Your task to perform on an android device: open device folders in google photos Image 0: 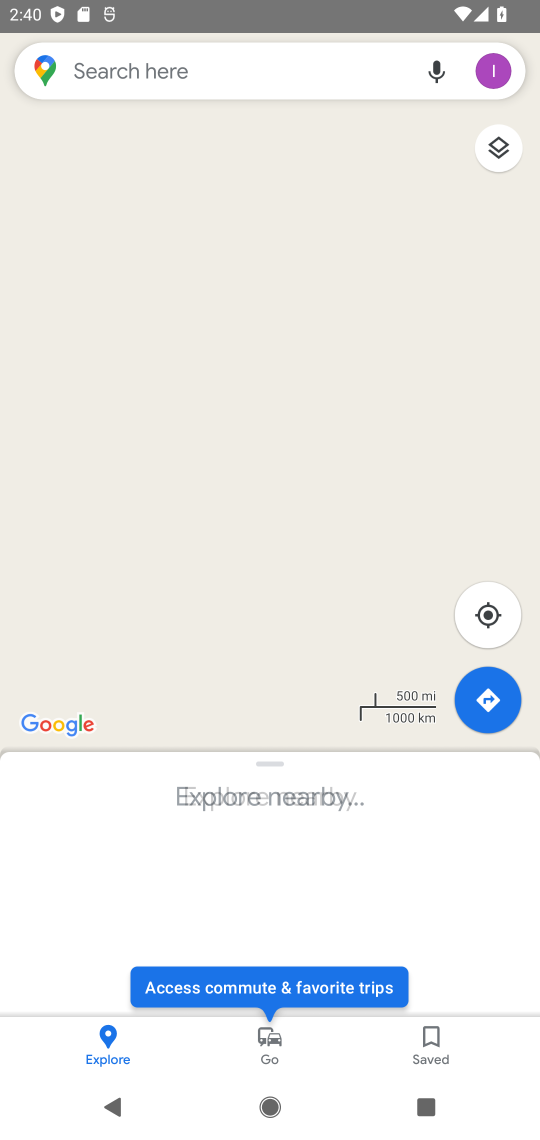
Step 0: press home button
Your task to perform on an android device: open device folders in google photos Image 1: 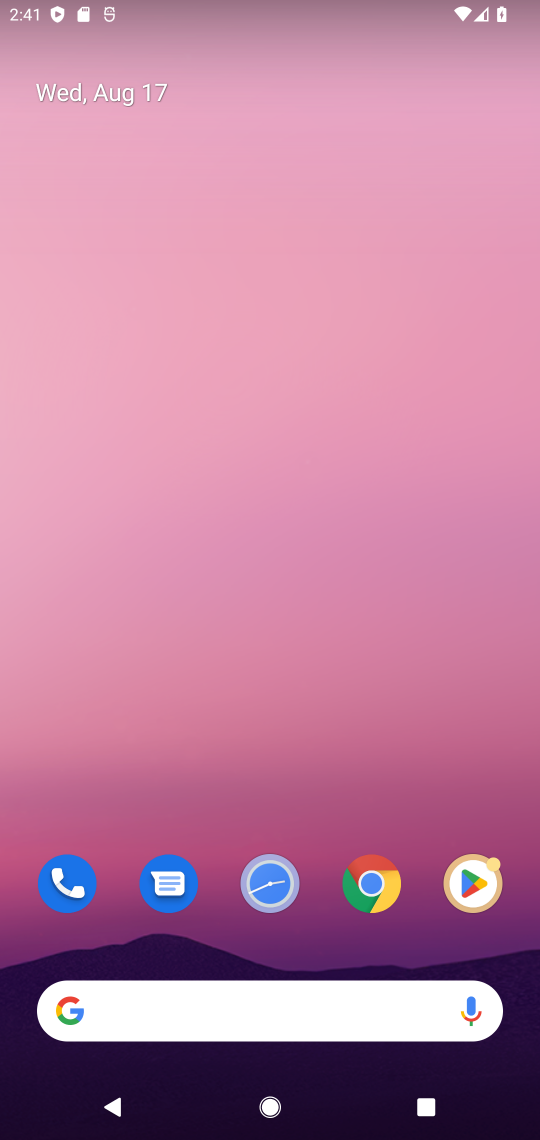
Step 1: drag from (291, 783) to (197, 173)
Your task to perform on an android device: open device folders in google photos Image 2: 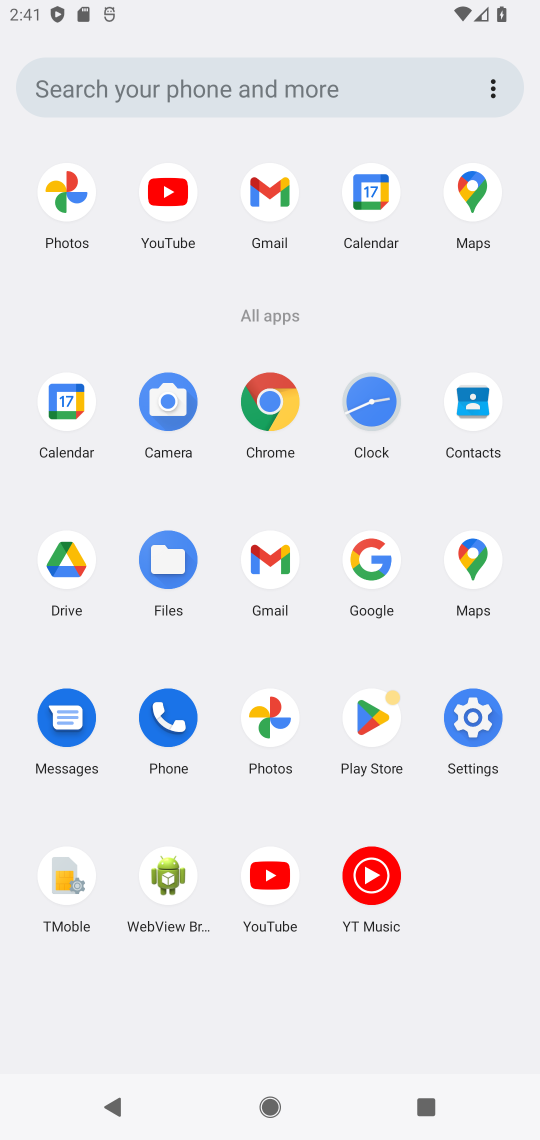
Step 2: click (264, 742)
Your task to perform on an android device: open device folders in google photos Image 3: 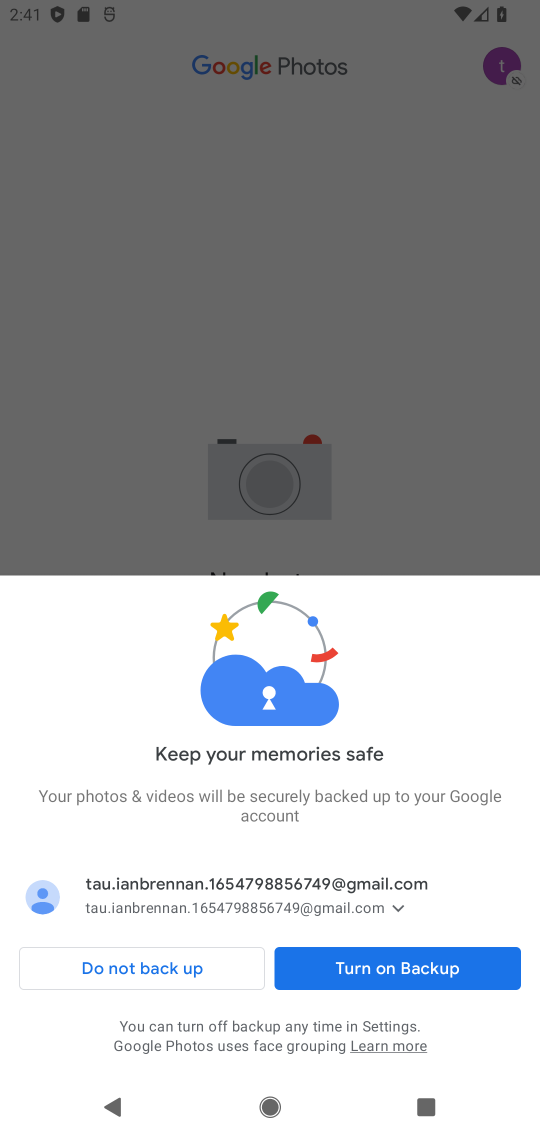
Step 3: click (357, 984)
Your task to perform on an android device: open device folders in google photos Image 4: 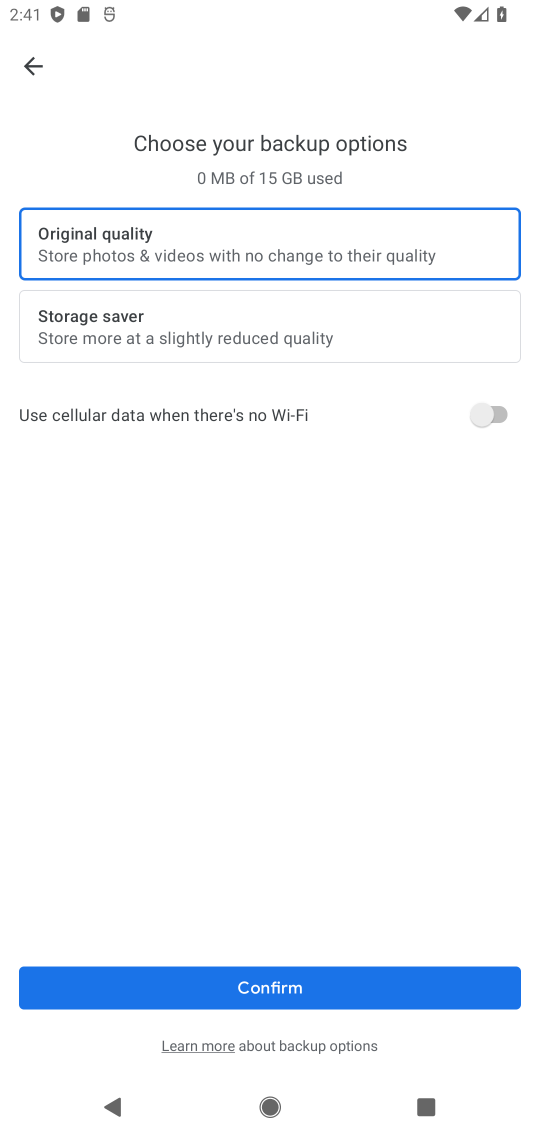
Step 4: click (335, 1006)
Your task to perform on an android device: open device folders in google photos Image 5: 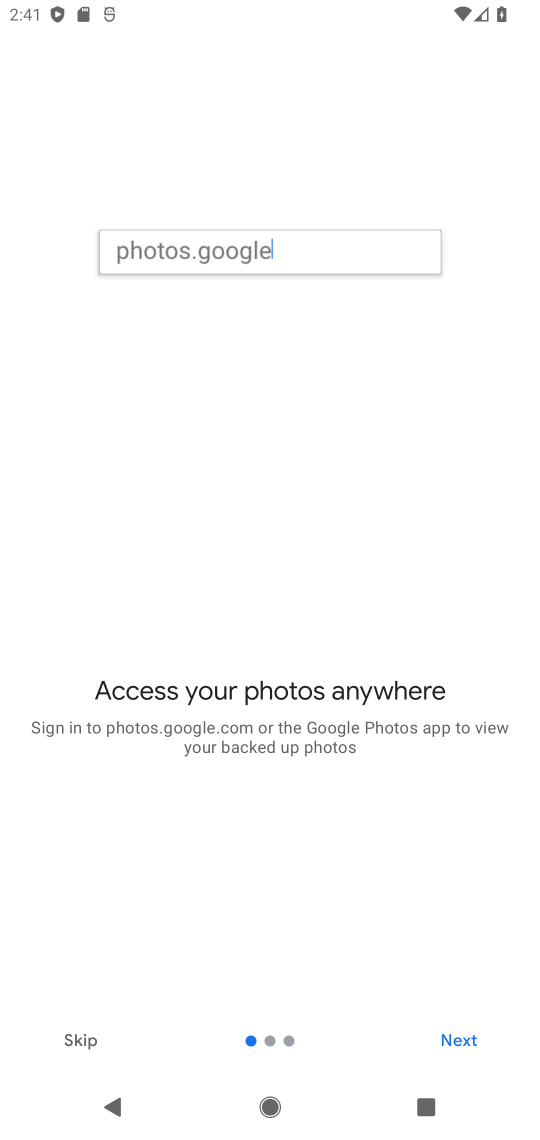
Step 5: click (479, 1038)
Your task to perform on an android device: open device folders in google photos Image 6: 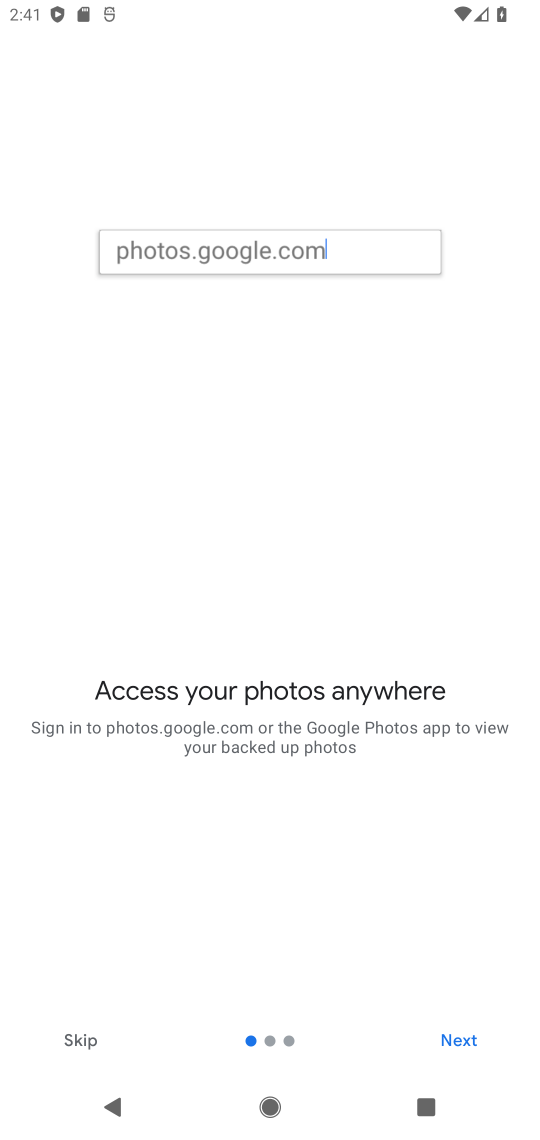
Step 6: click (479, 1038)
Your task to perform on an android device: open device folders in google photos Image 7: 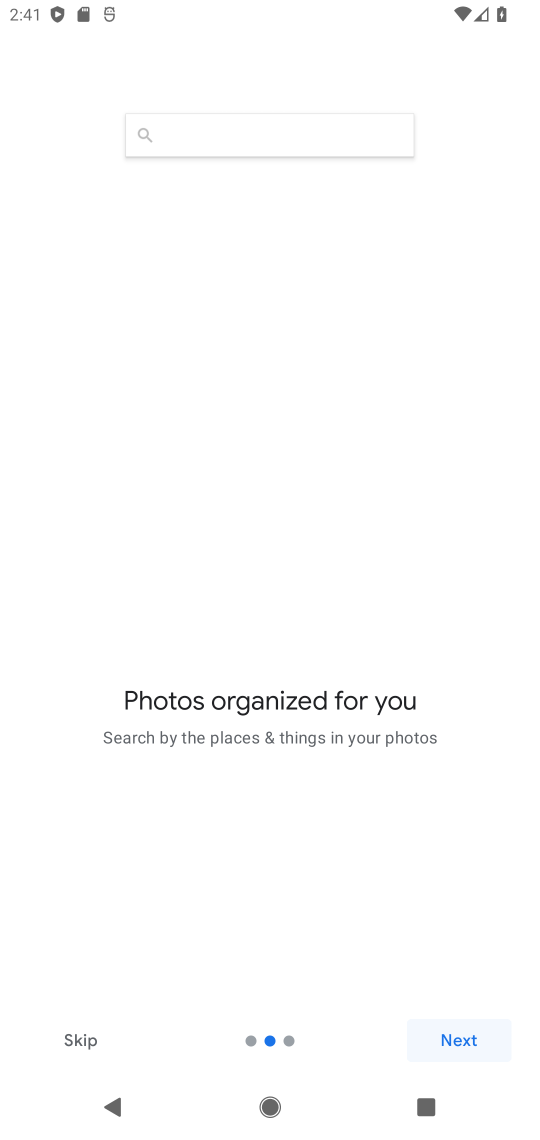
Step 7: click (479, 1038)
Your task to perform on an android device: open device folders in google photos Image 8: 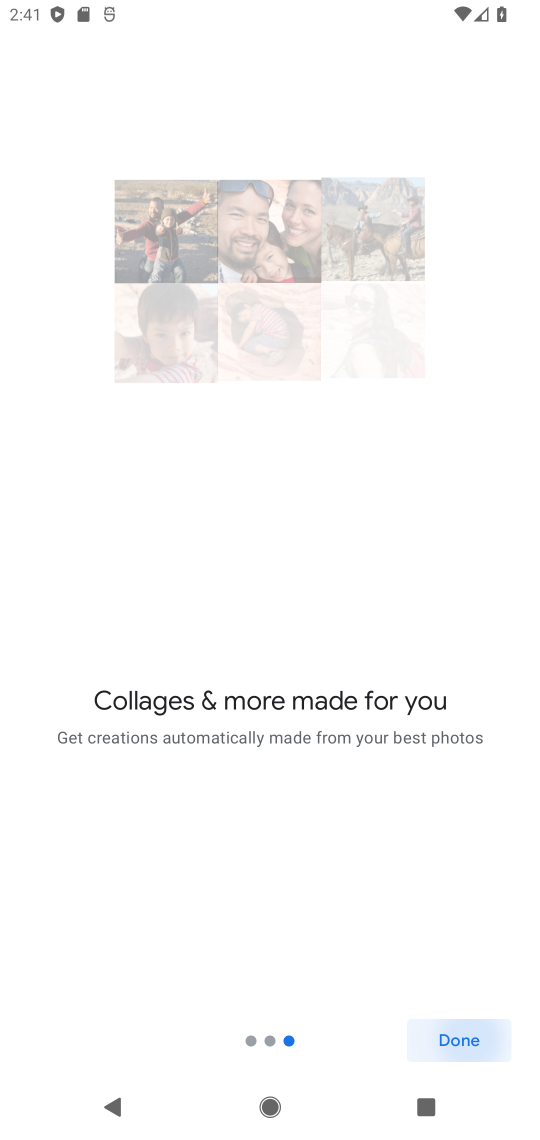
Step 8: click (479, 1038)
Your task to perform on an android device: open device folders in google photos Image 9: 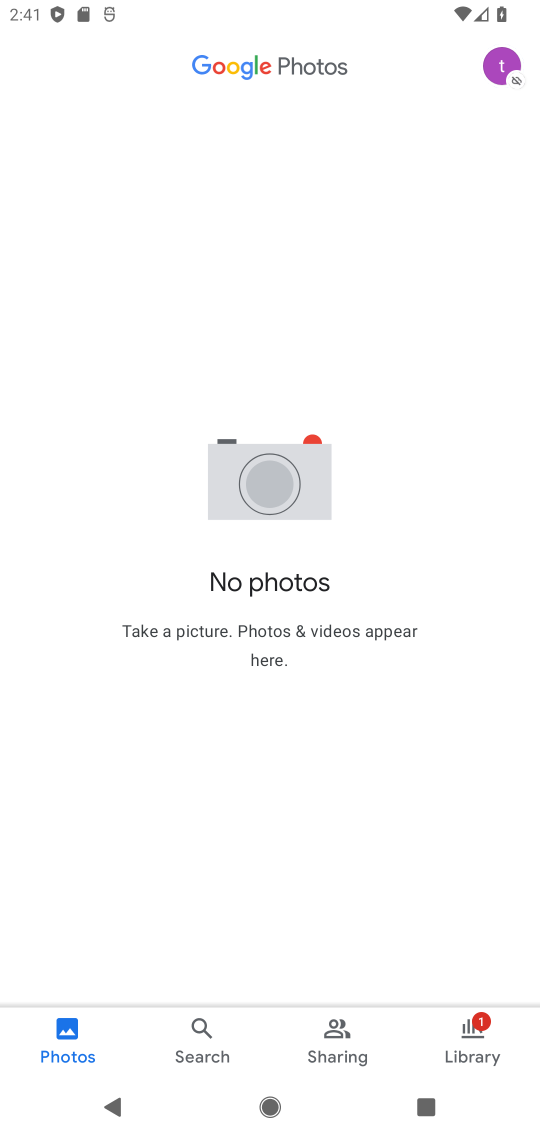
Step 9: click (479, 1038)
Your task to perform on an android device: open device folders in google photos Image 10: 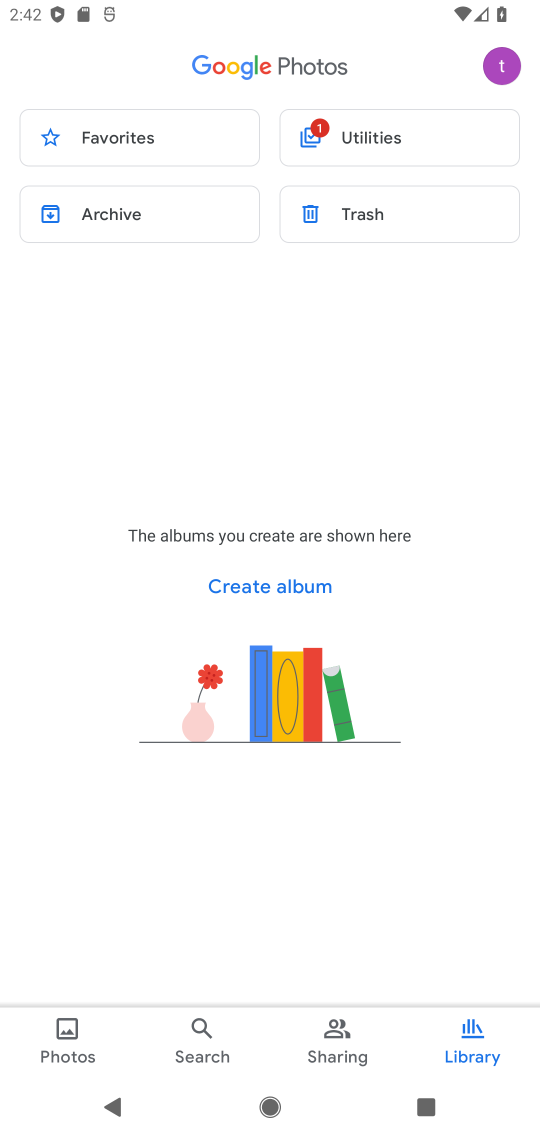
Step 10: click (479, 1038)
Your task to perform on an android device: open device folders in google photos Image 11: 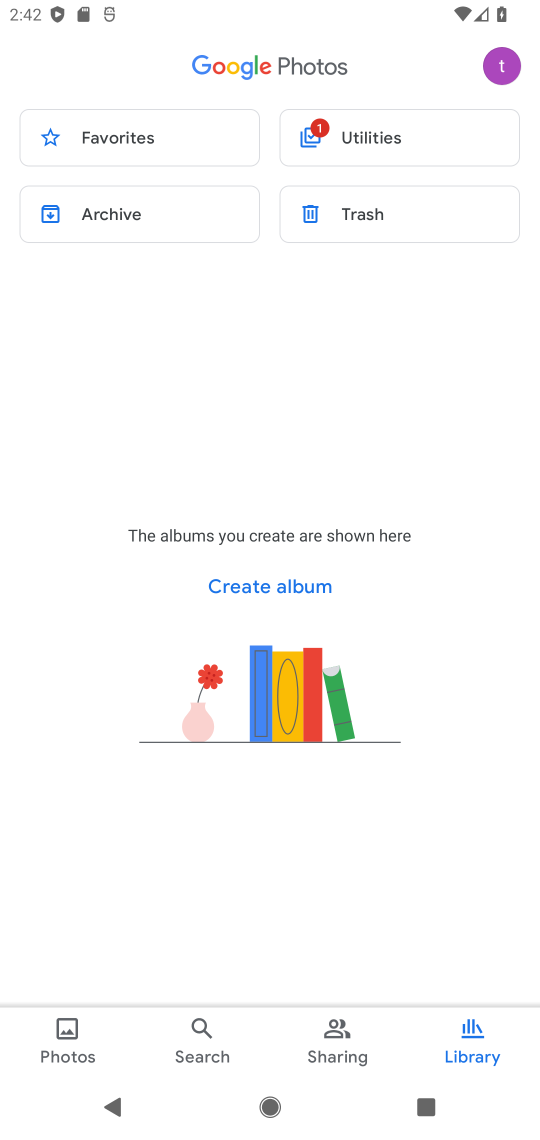
Step 11: click (372, 126)
Your task to perform on an android device: open device folders in google photos Image 12: 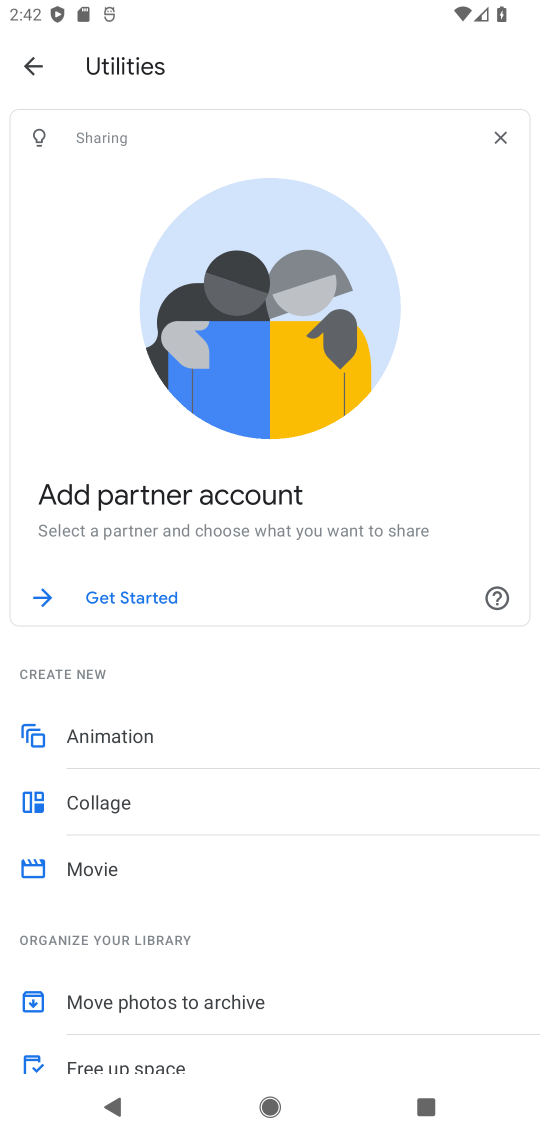
Step 12: drag from (319, 947) to (264, 353)
Your task to perform on an android device: open device folders in google photos Image 13: 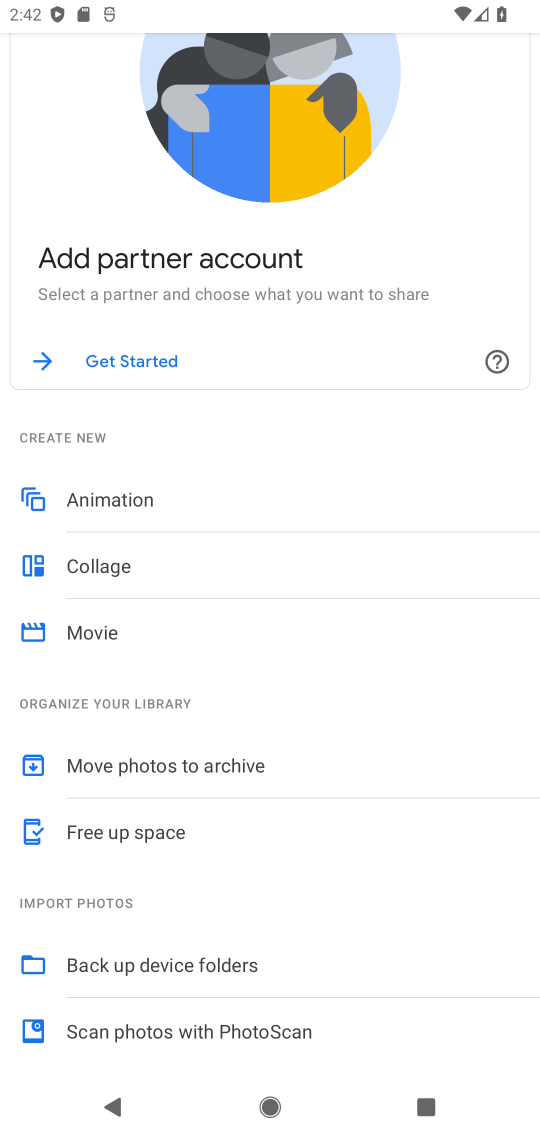
Step 13: click (177, 976)
Your task to perform on an android device: open device folders in google photos Image 14: 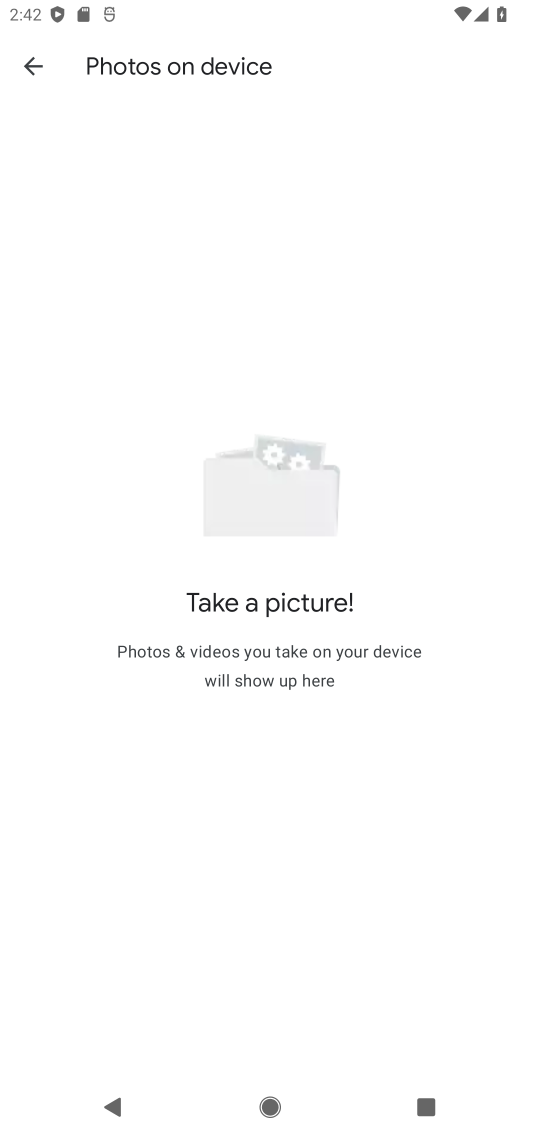
Step 14: task complete